Your task to perform on an android device: Open location settings Image 0: 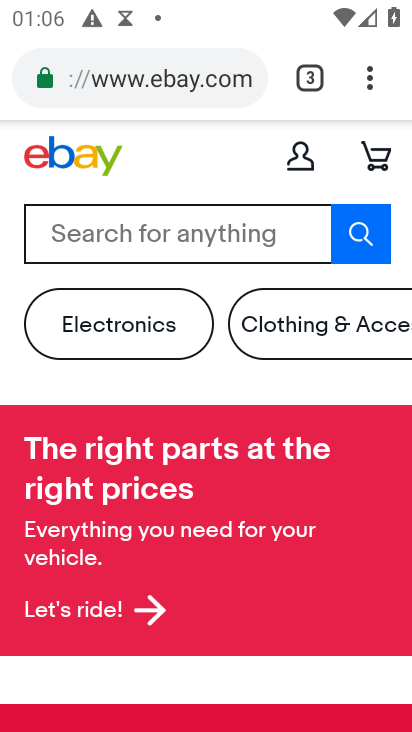
Step 0: press home button
Your task to perform on an android device: Open location settings Image 1: 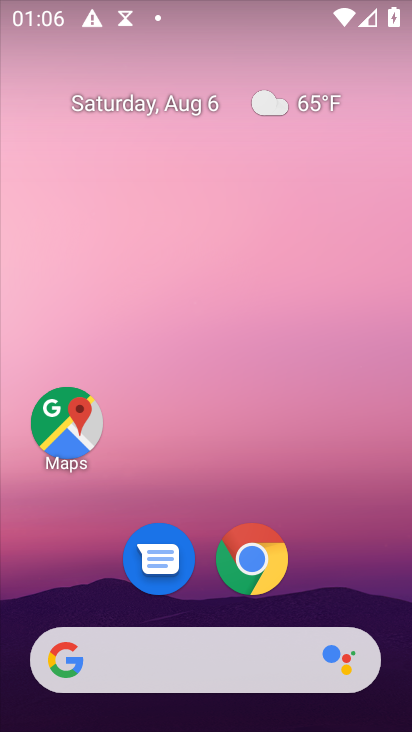
Step 1: drag from (345, 573) to (214, 145)
Your task to perform on an android device: Open location settings Image 2: 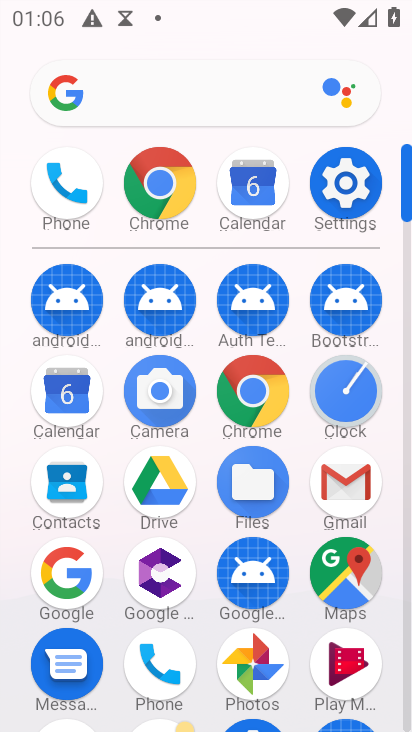
Step 2: click (359, 183)
Your task to perform on an android device: Open location settings Image 3: 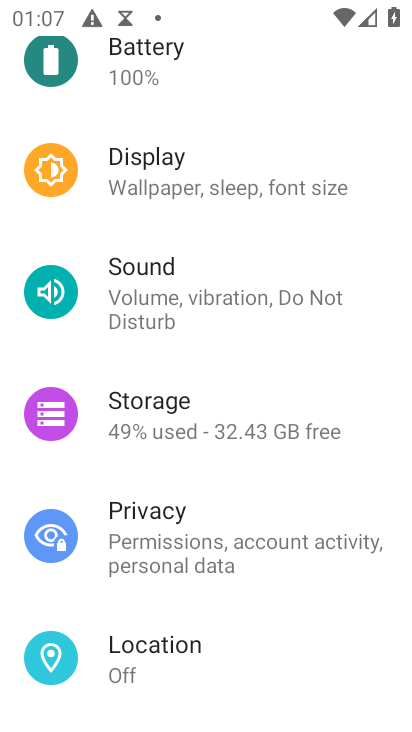
Step 3: click (272, 657)
Your task to perform on an android device: Open location settings Image 4: 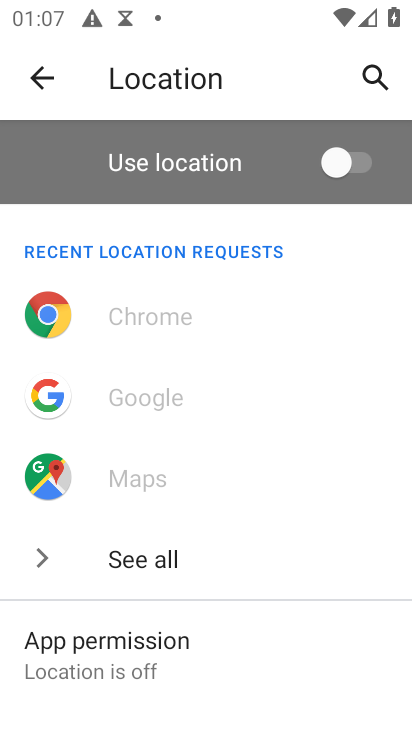
Step 4: task complete